Your task to perform on an android device: Open the stopwatch Image 0: 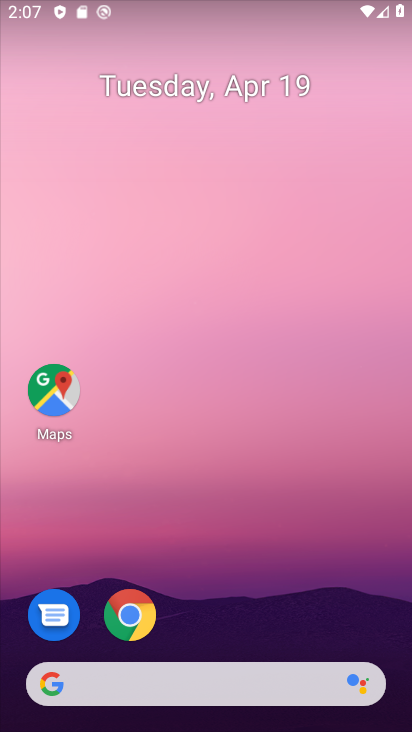
Step 0: click (411, 54)
Your task to perform on an android device: Open the stopwatch Image 1: 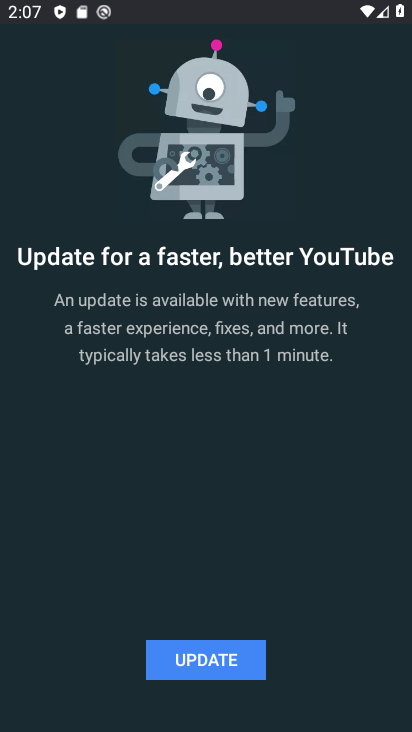
Step 1: press home button
Your task to perform on an android device: Open the stopwatch Image 2: 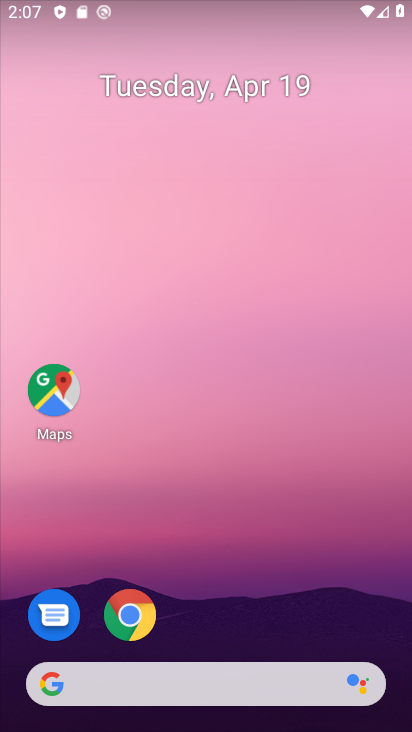
Step 2: drag from (263, 569) to (281, 315)
Your task to perform on an android device: Open the stopwatch Image 3: 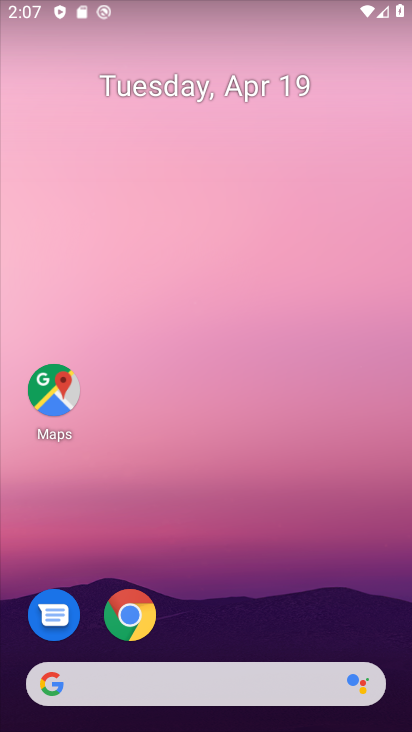
Step 3: drag from (184, 635) to (254, 363)
Your task to perform on an android device: Open the stopwatch Image 4: 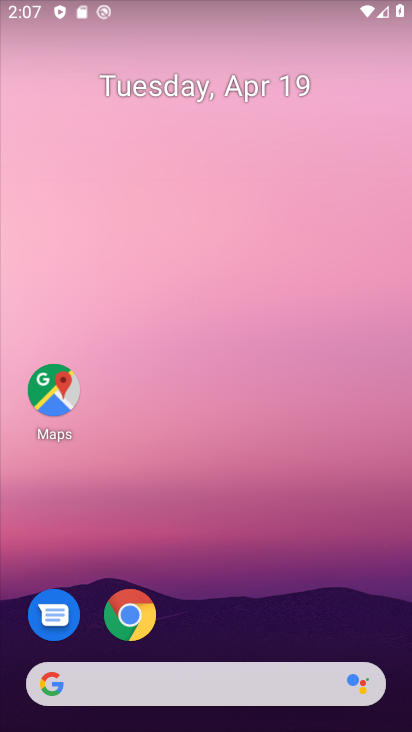
Step 4: drag from (243, 548) to (254, 0)
Your task to perform on an android device: Open the stopwatch Image 5: 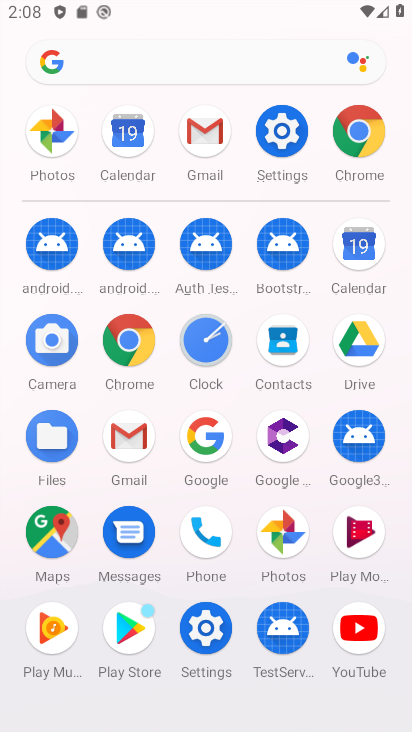
Step 5: click (197, 333)
Your task to perform on an android device: Open the stopwatch Image 6: 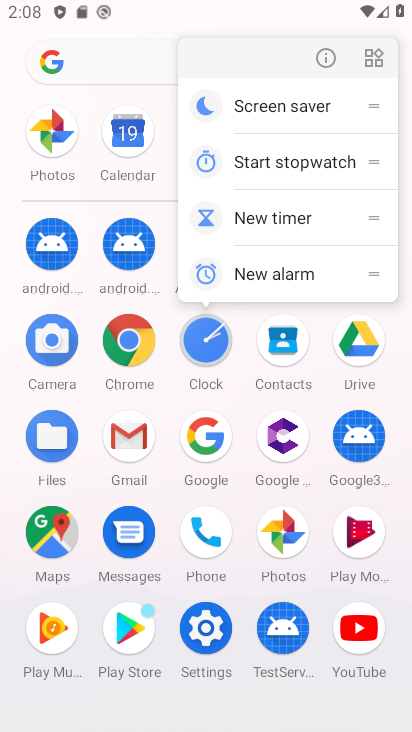
Step 6: click (324, 55)
Your task to perform on an android device: Open the stopwatch Image 7: 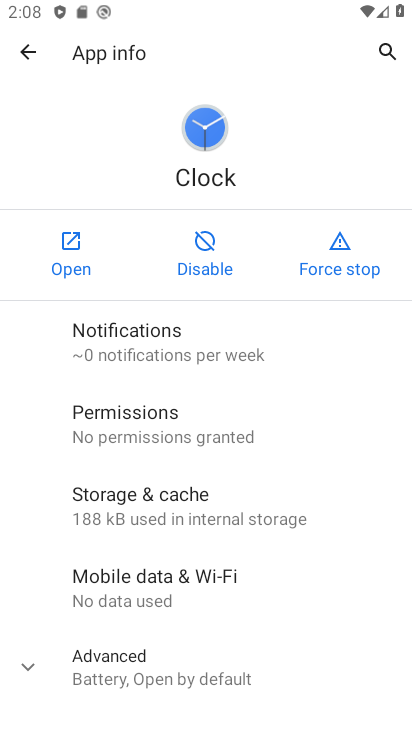
Step 7: click (77, 250)
Your task to perform on an android device: Open the stopwatch Image 8: 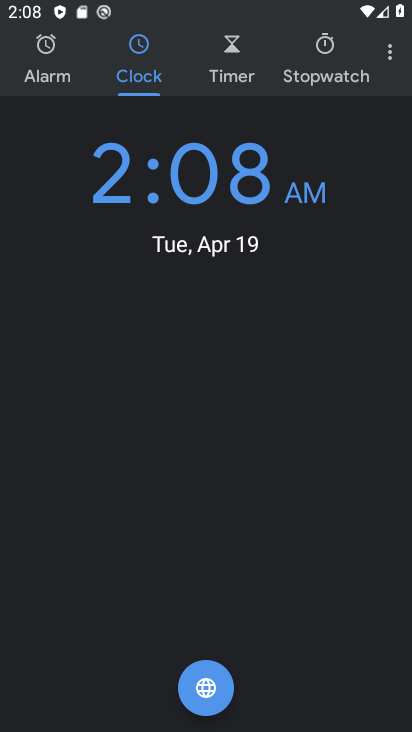
Step 8: click (314, 55)
Your task to perform on an android device: Open the stopwatch Image 9: 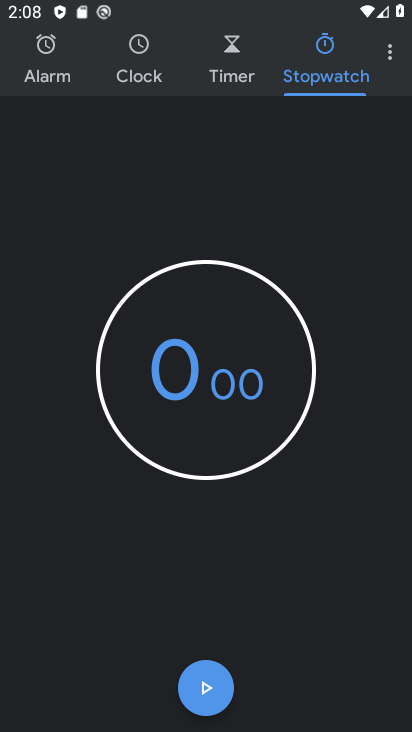
Step 9: click (204, 684)
Your task to perform on an android device: Open the stopwatch Image 10: 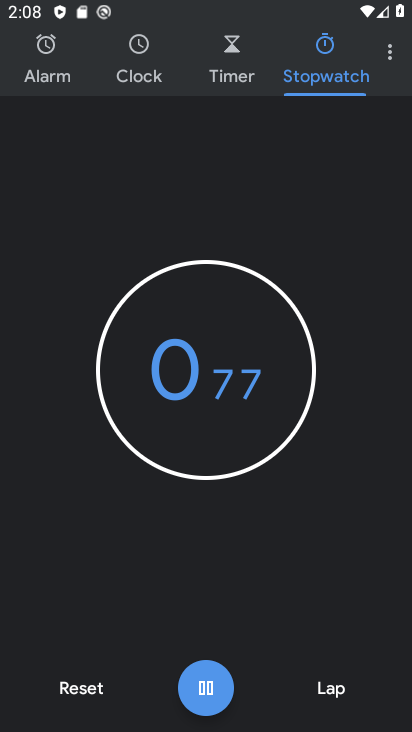
Step 10: task complete